Your task to perform on an android device: open app "Google Pay: Save, Pay, Manage" Image 0: 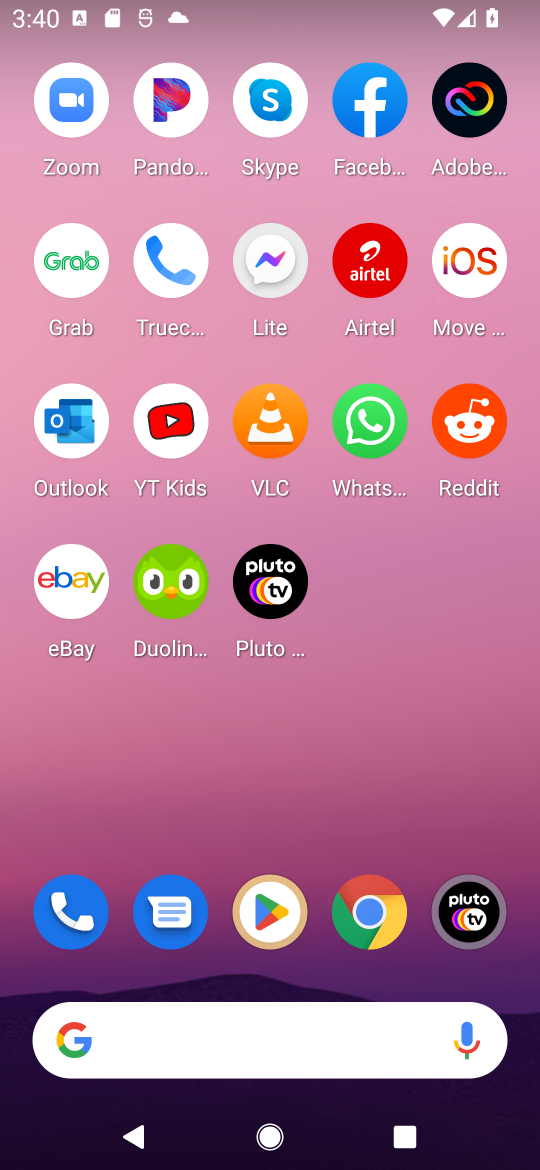
Step 0: drag from (174, 1044) to (185, 96)
Your task to perform on an android device: open app "Google Pay: Save, Pay, Manage" Image 1: 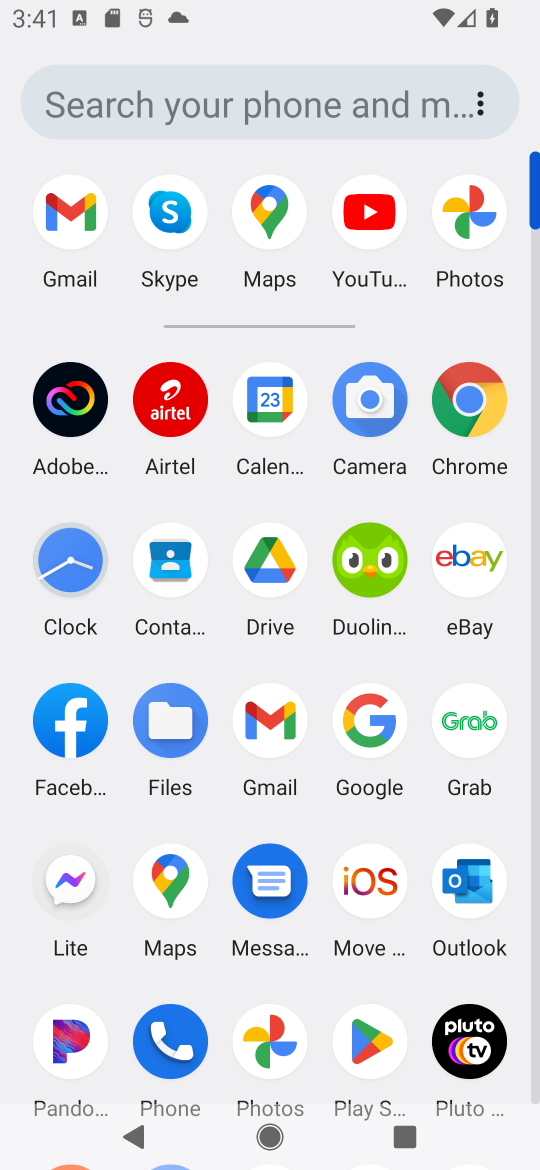
Step 1: click (365, 1052)
Your task to perform on an android device: open app "Google Pay: Save, Pay, Manage" Image 2: 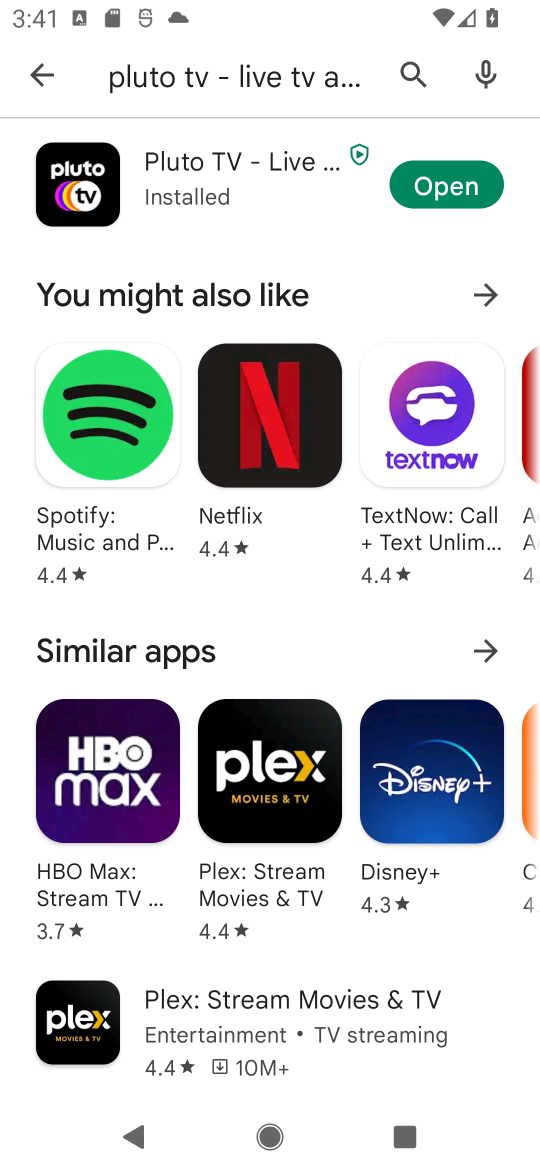
Step 2: press back button
Your task to perform on an android device: open app "Google Pay: Save, Pay, Manage" Image 3: 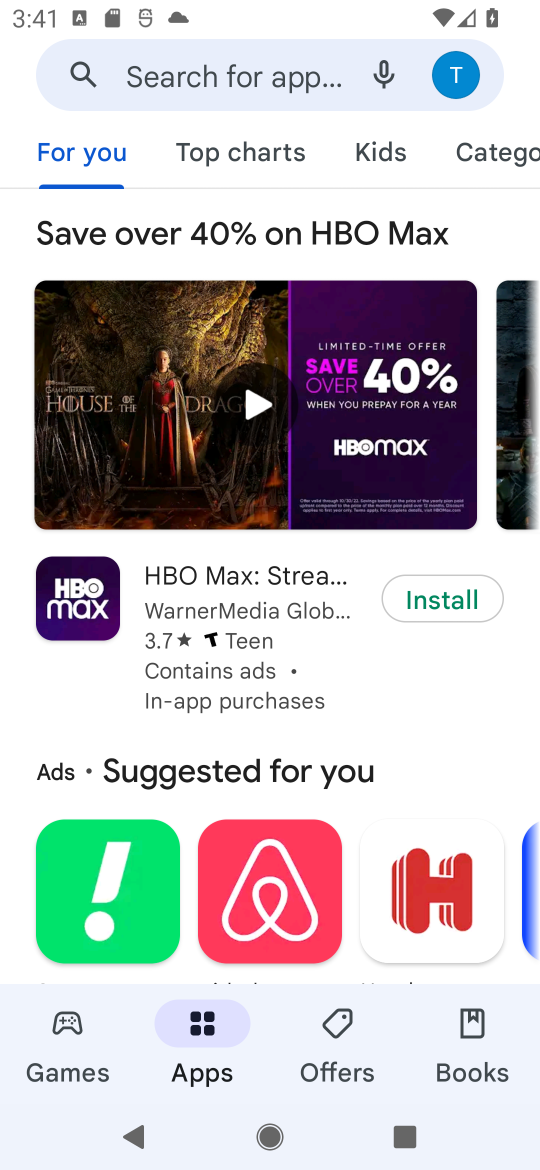
Step 3: click (296, 74)
Your task to perform on an android device: open app "Google Pay: Save, Pay, Manage" Image 4: 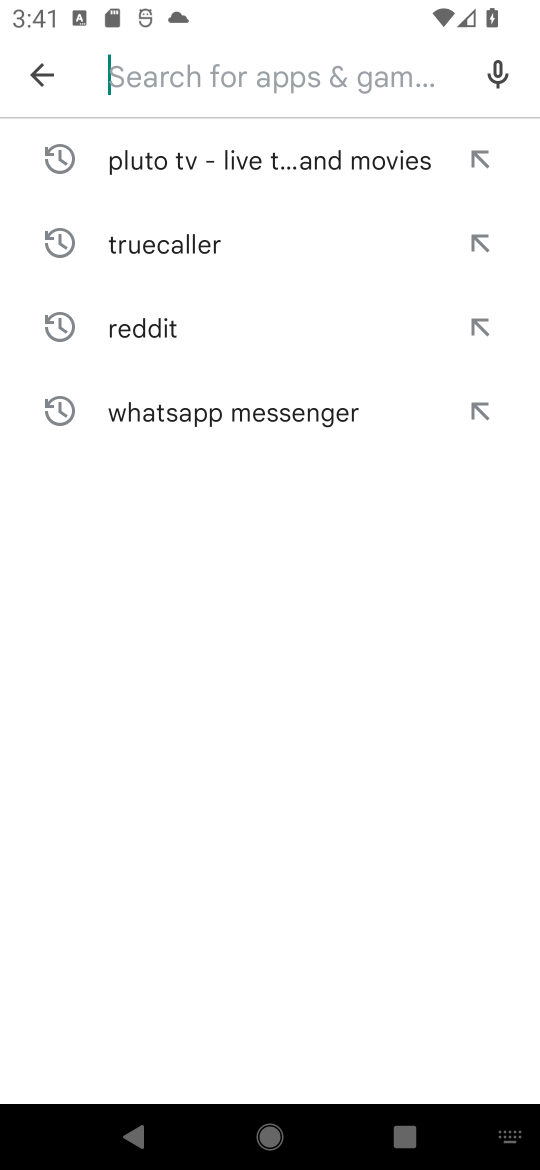
Step 4: type "Google Pay: Save, Pay, Manage"
Your task to perform on an android device: open app "Google Pay: Save, Pay, Manage" Image 5: 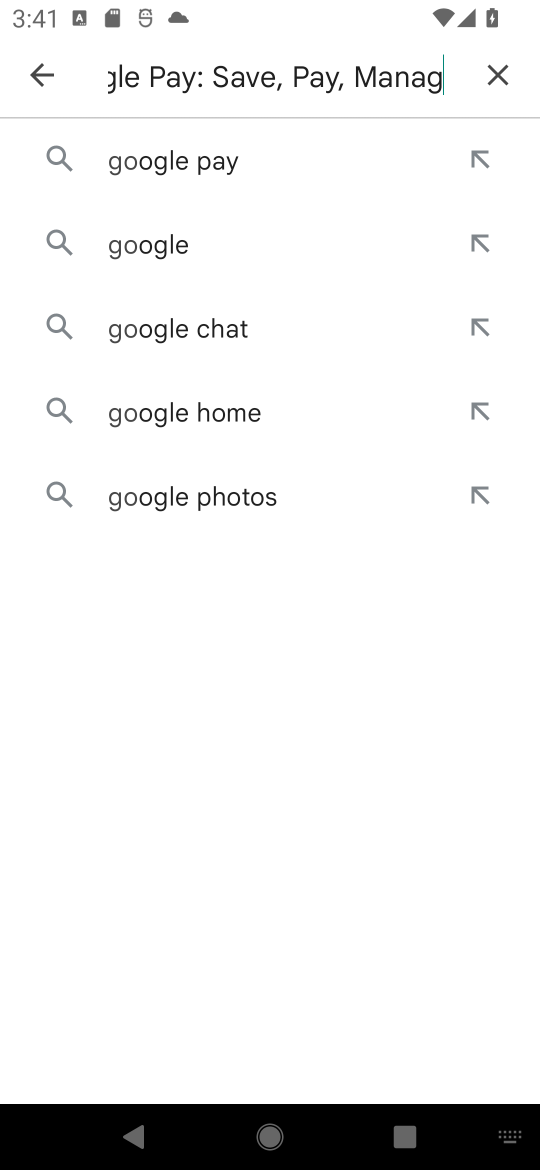
Step 5: type ""
Your task to perform on an android device: open app "Google Pay: Save, Pay, Manage" Image 6: 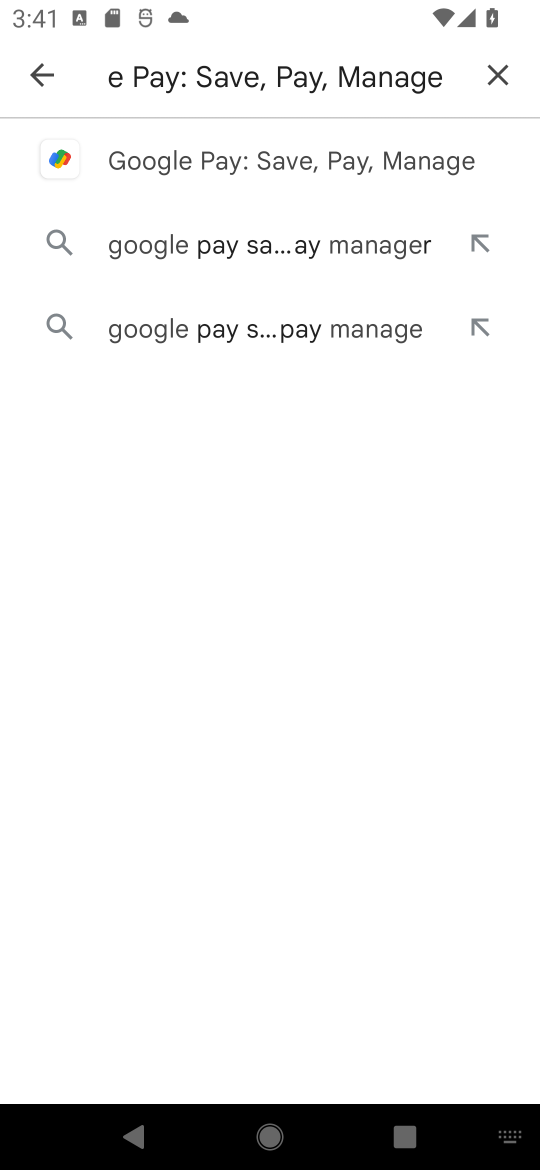
Step 6: click (399, 153)
Your task to perform on an android device: open app "Google Pay: Save, Pay, Manage" Image 7: 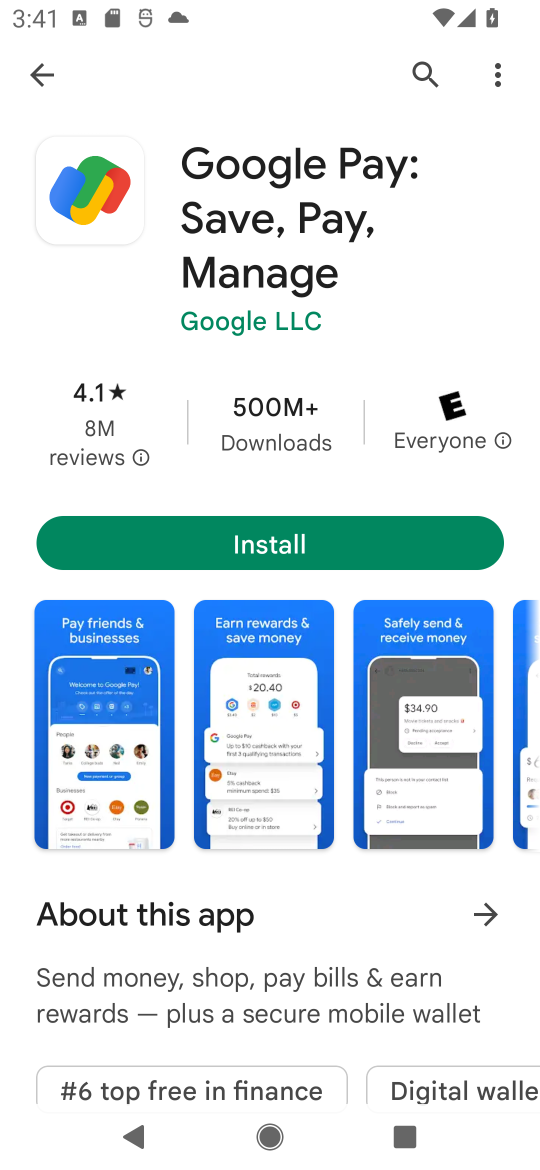
Step 7: task complete